Your task to perform on an android device: change the clock display to show seconds Image 0: 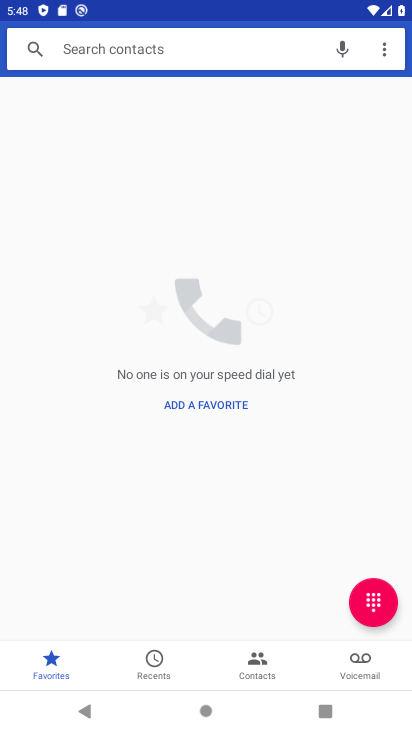
Step 0: press home button
Your task to perform on an android device: change the clock display to show seconds Image 1: 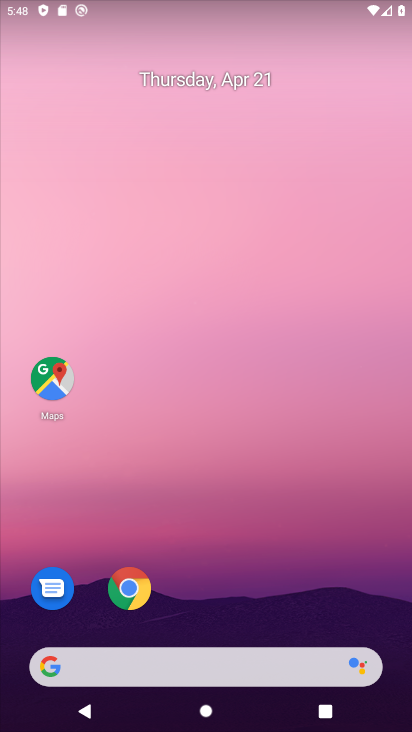
Step 1: drag from (221, 602) to (204, 443)
Your task to perform on an android device: change the clock display to show seconds Image 2: 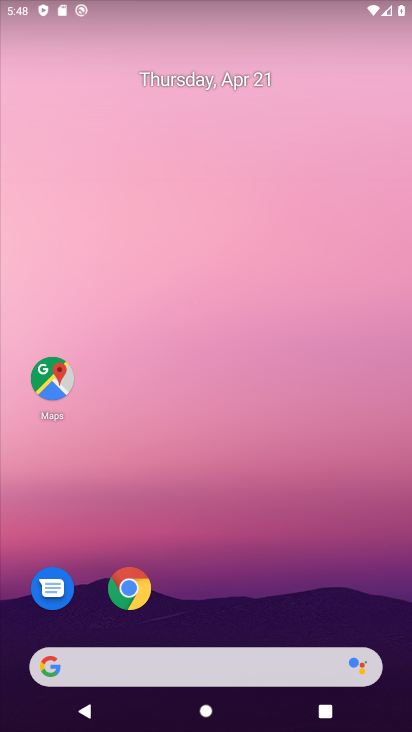
Step 2: drag from (189, 595) to (104, 155)
Your task to perform on an android device: change the clock display to show seconds Image 3: 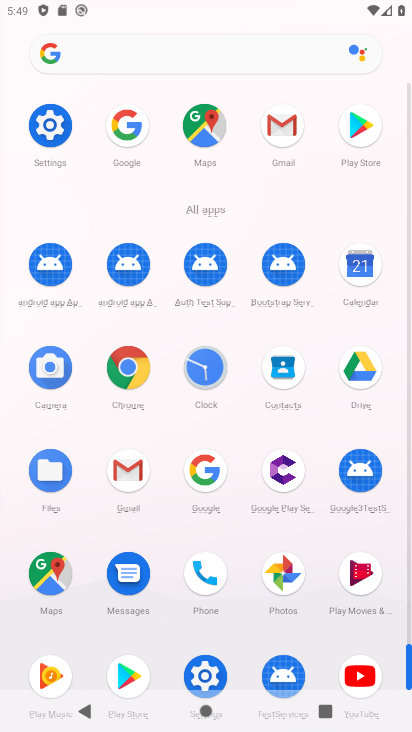
Step 3: click (203, 380)
Your task to perform on an android device: change the clock display to show seconds Image 4: 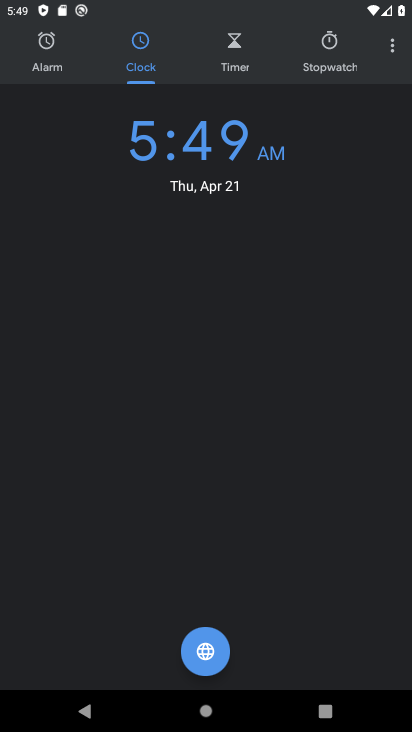
Step 4: click (395, 48)
Your task to perform on an android device: change the clock display to show seconds Image 5: 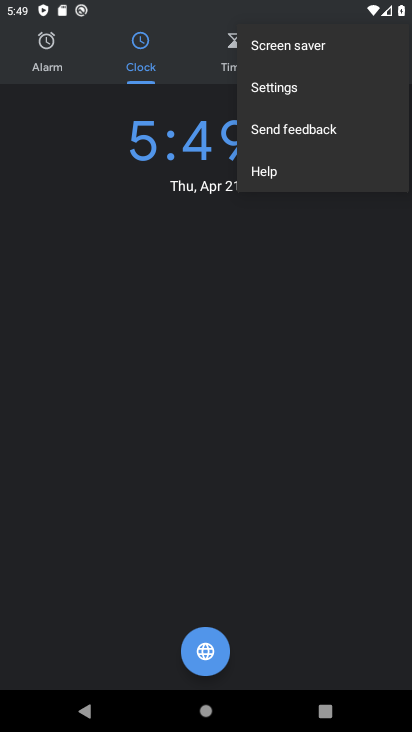
Step 5: click (312, 96)
Your task to perform on an android device: change the clock display to show seconds Image 6: 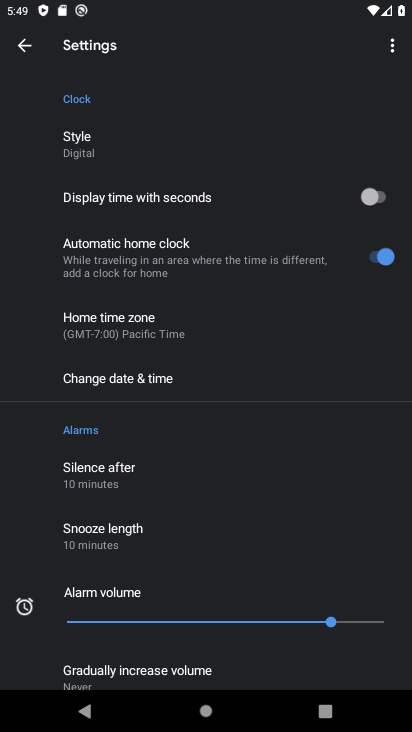
Step 6: click (385, 198)
Your task to perform on an android device: change the clock display to show seconds Image 7: 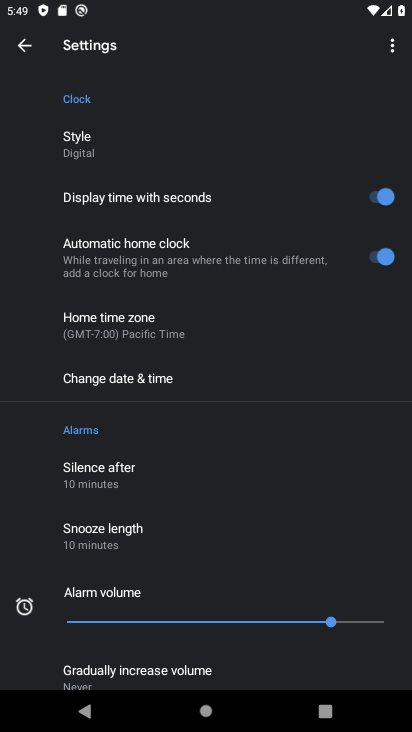
Step 7: task complete